Your task to perform on an android device: Open network settings Image 0: 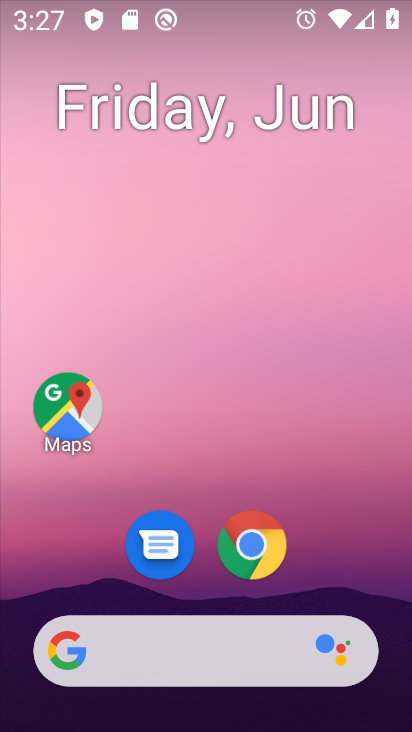
Step 0: drag from (351, 396) to (406, 340)
Your task to perform on an android device: Open network settings Image 1: 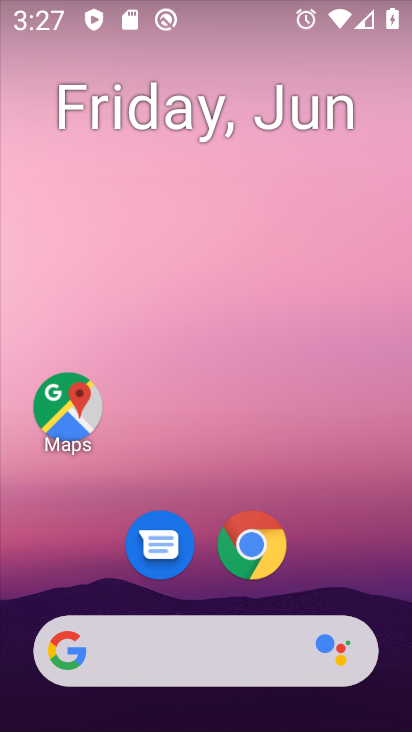
Step 1: drag from (313, 613) to (365, 26)
Your task to perform on an android device: Open network settings Image 2: 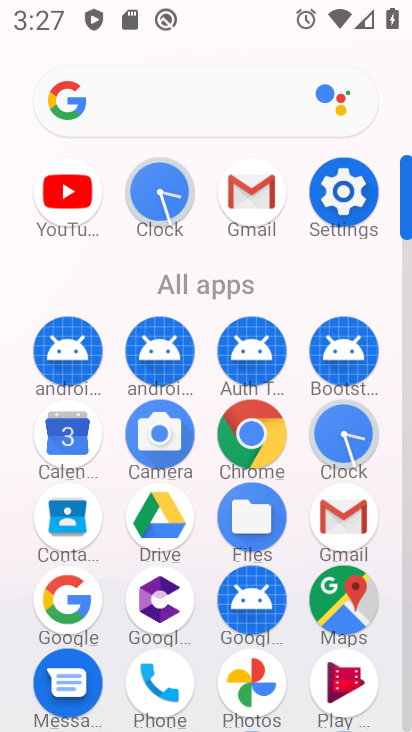
Step 2: click (352, 194)
Your task to perform on an android device: Open network settings Image 3: 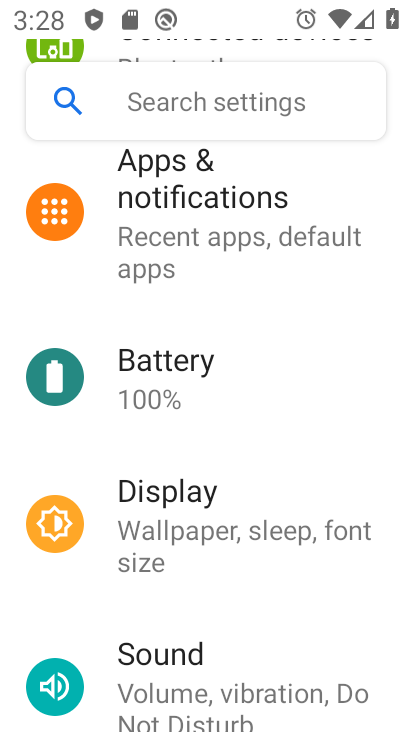
Step 3: drag from (286, 302) to (352, 601)
Your task to perform on an android device: Open network settings Image 4: 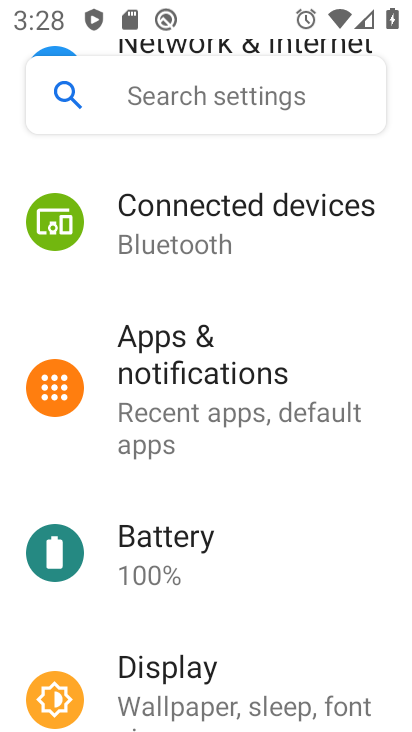
Step 4: drag from (342, 328) to (312, 731)
Your task to perform on an android device: Open network settings Image 5: 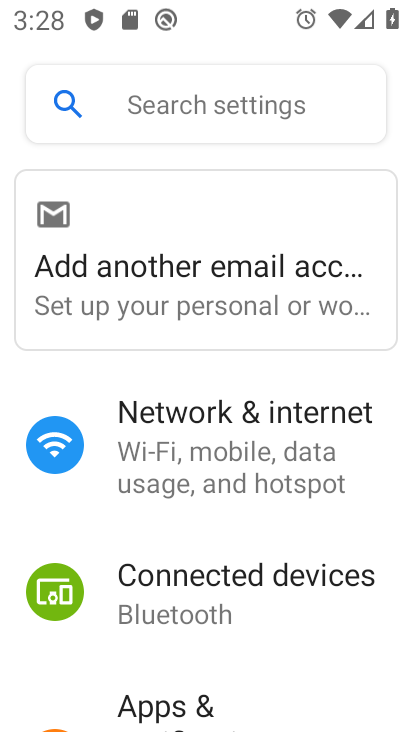
Step 5: click (254, 444)
Your task to perform on an android device: Open network settings Image 6: 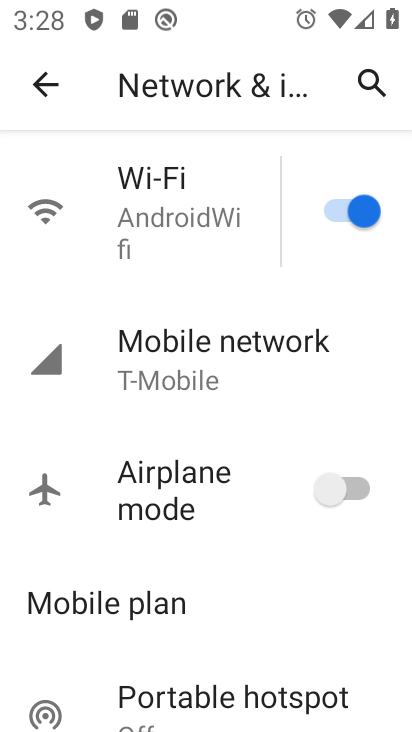
Step 6: click (265, 399)
Your task to perform on an android device: Open network settings Image 7: 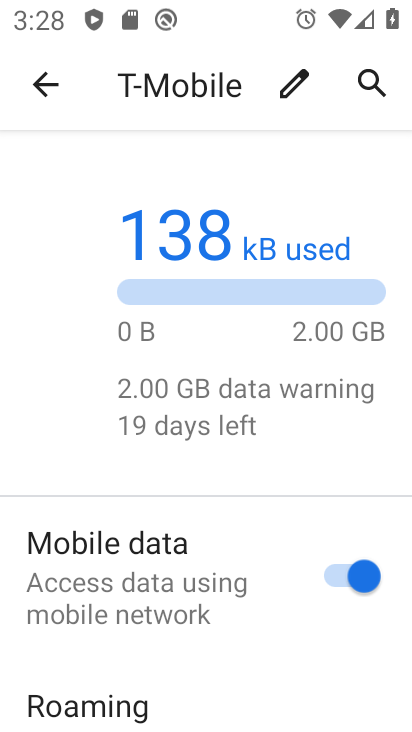
Step 7: task complete